Your task to perform on an android device: Go to CNN.com Image 0: 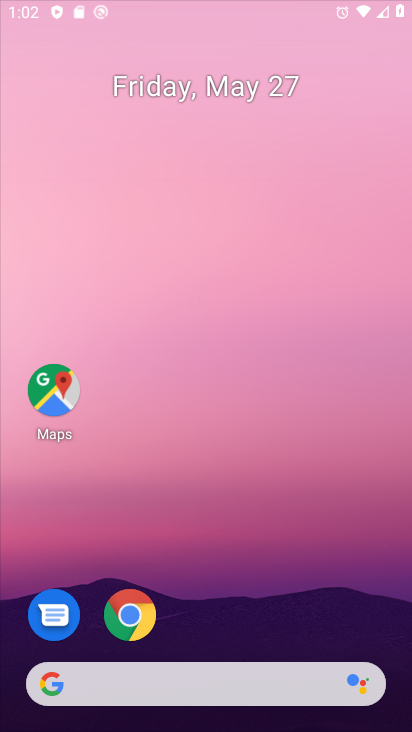
Step 0: press home button
Your task to perform on an android device: Go to CNN.com Image 1: 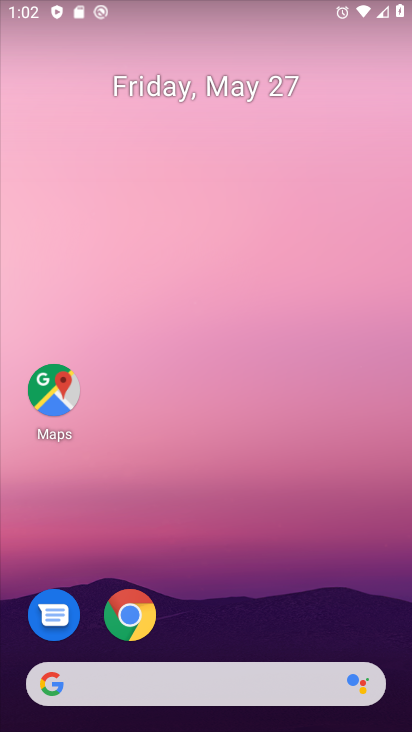
Step 1: click (20, 689)
Your task to perform on an android device: Go to CNN.com Image 2: 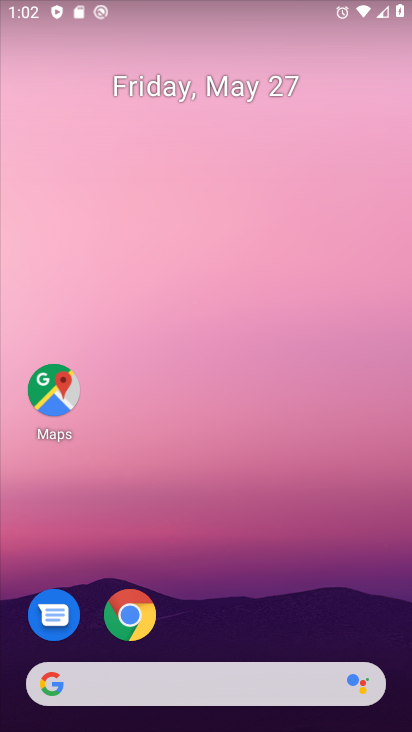
Step 2: click (44, 689)
Your task to perform on an android device: Go to CNN.com Image 3: 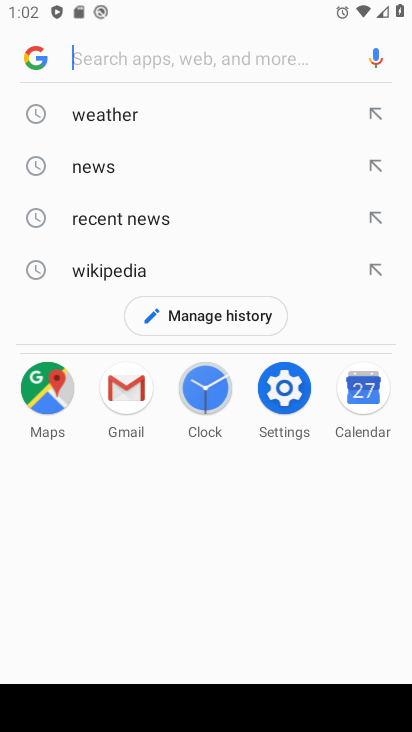
Step 3: type "CNN.com"
Your task to perform on an android device: Go to CNN.com Image 4: 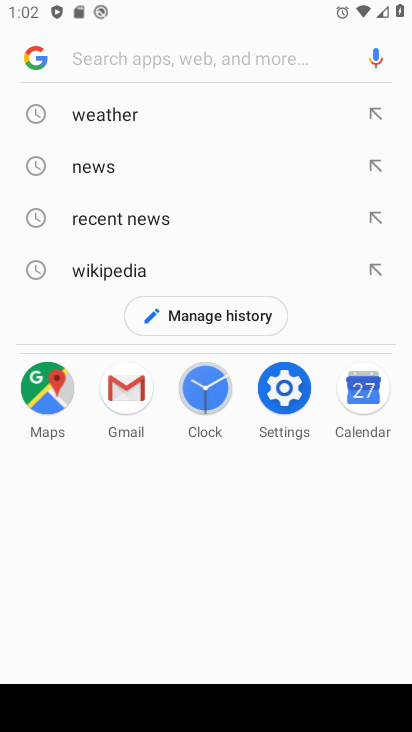
Step 4: click (195, 71)
Your task to perform on an android device: Go to CNN.com Image 5: 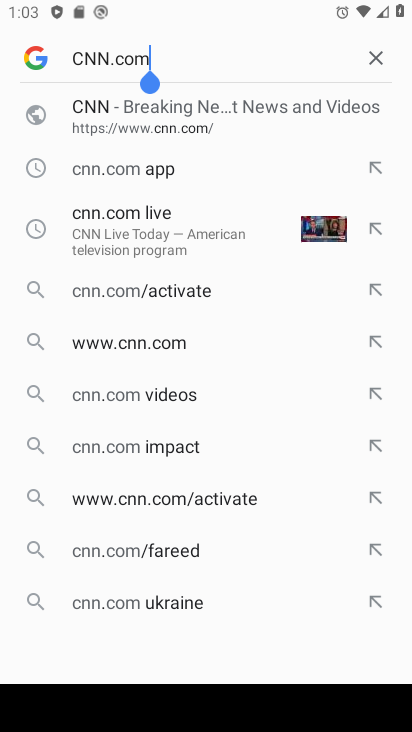
Step 5: click (139, 108)
Your task to perform on an android device: Go to CNN.com Image 6: 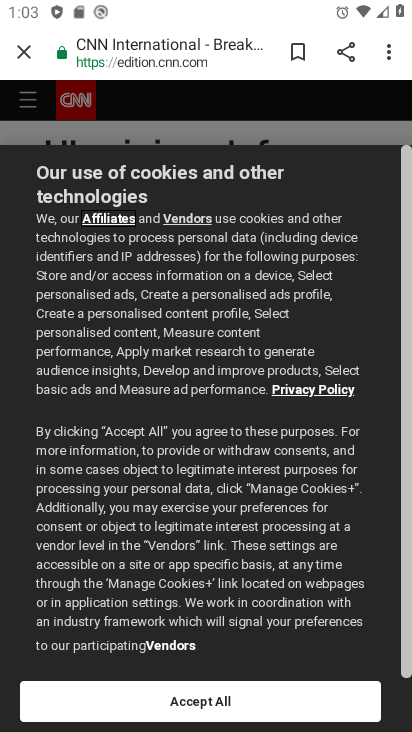
Step 6: task complete